Your task to perform on an android device: open wifi settings Image 0: 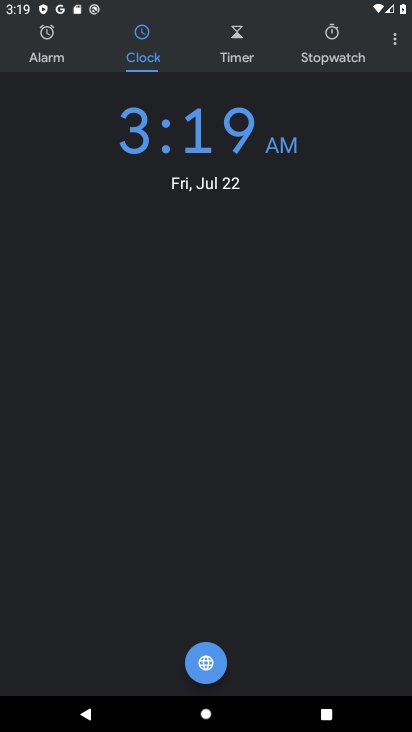
Step 0: task complete